Your task to perform on an android device: turn off airplane mode Image 0: 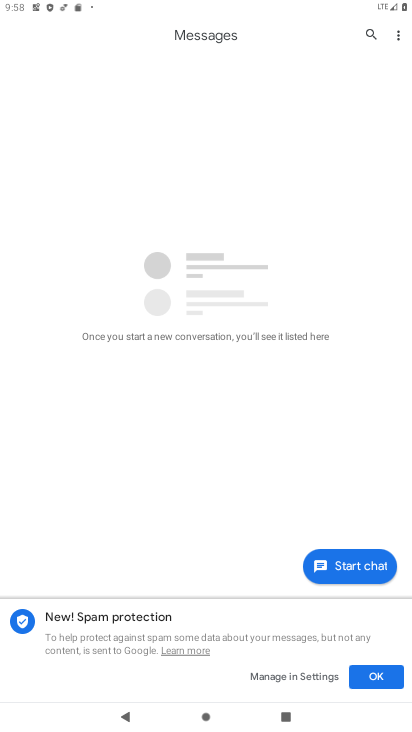
Step 0: press home button
Your task to perform on an android device: turn off airplane mode Image 1: 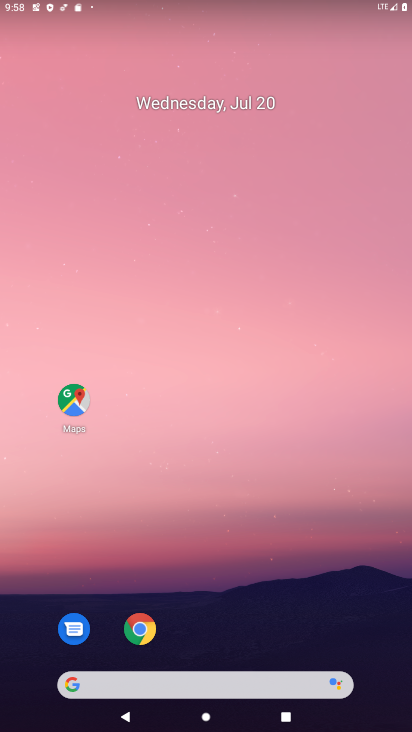
Step 1: drag from (231, 649) to (272, 731)
Your task to perform on an android device: turn off airplane mode Image 2: 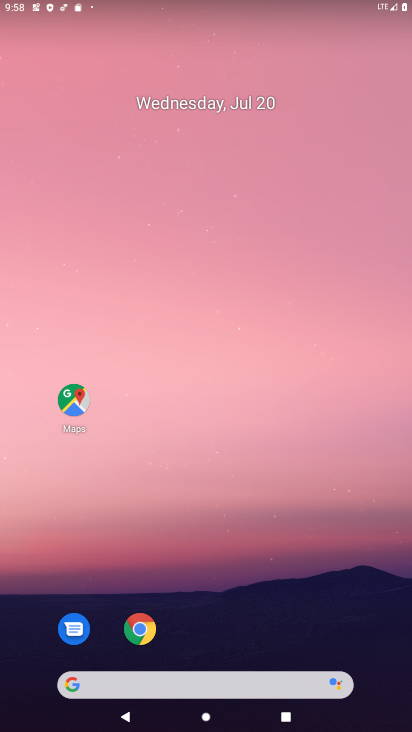
Step 2: drag from (375, 10) to (264, 595)
Your task to perform on an android device: turn off airplane mode Image 3: 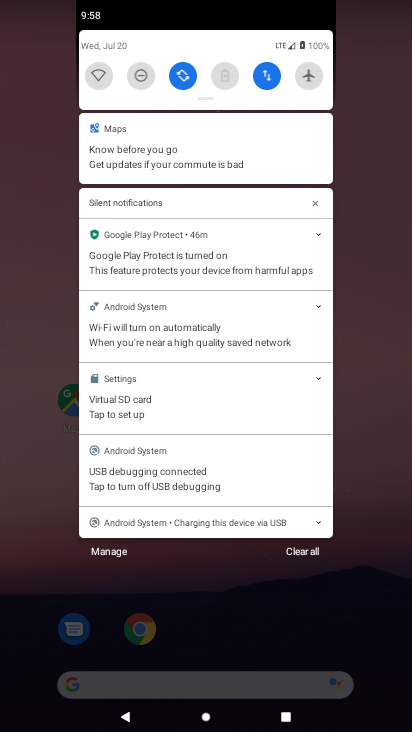
Step 3: drag from (210, 107) to (239, 508)
Your task to perform on an android device: turn off airplane mode Image 4: 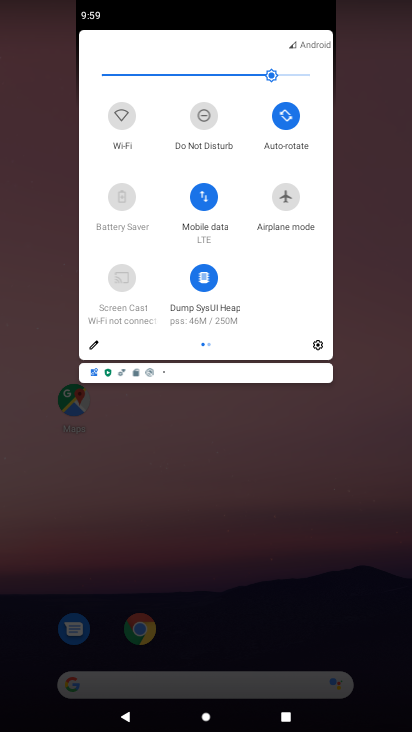
Step 4: click (298, 194)
Your task to perform on an android device: turn off airplane mode Image 5: 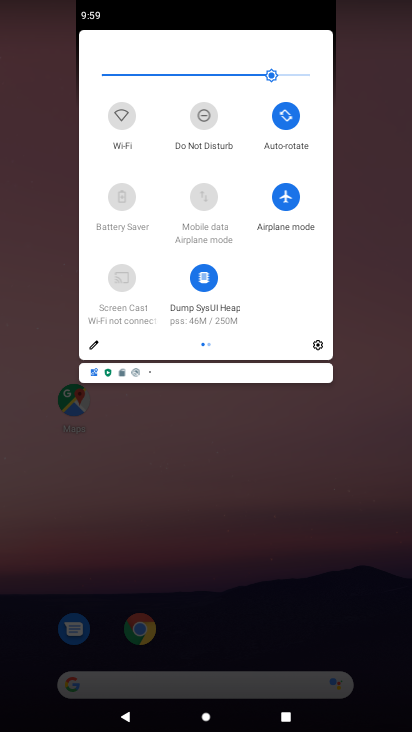
Step 5: click (298, 194)
Your task to perform on an android device: turn off airplane mode Image 6: 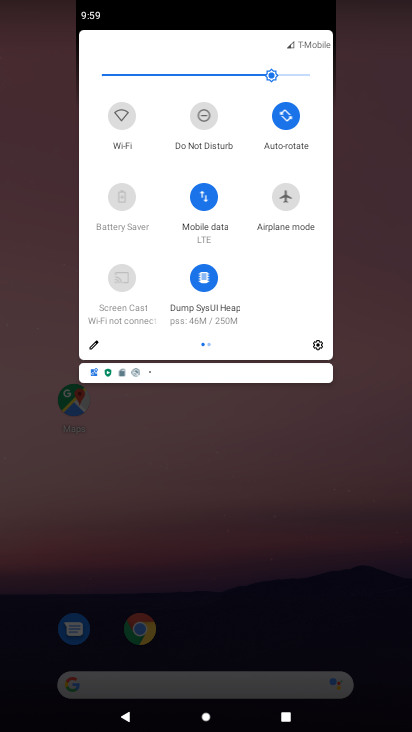
Step 6: task complete